Your task to perform on an android device: change notification settings in the gmail app Image 0: 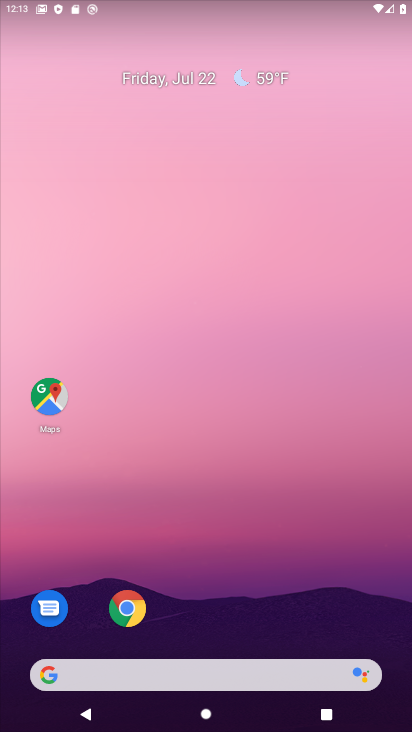
Step 0: drag from (227, 631) to (271, 11)
Your task to perform on an android device: change notification settings in the gmail app Image 1: 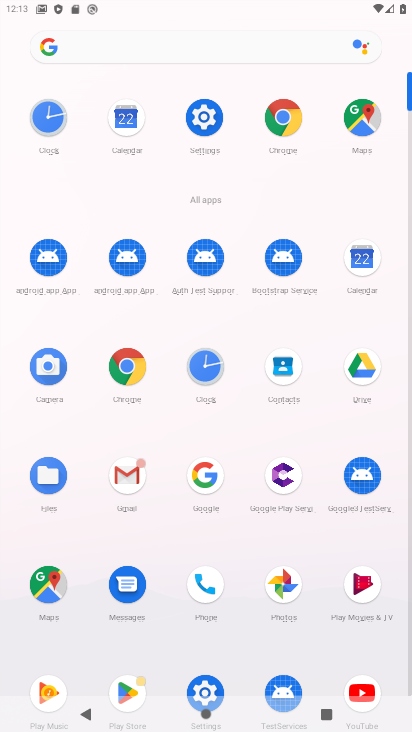
Step 1: click (128, 483)
Your task to perform on an android device: change notification settings in the gmail app Image 2: 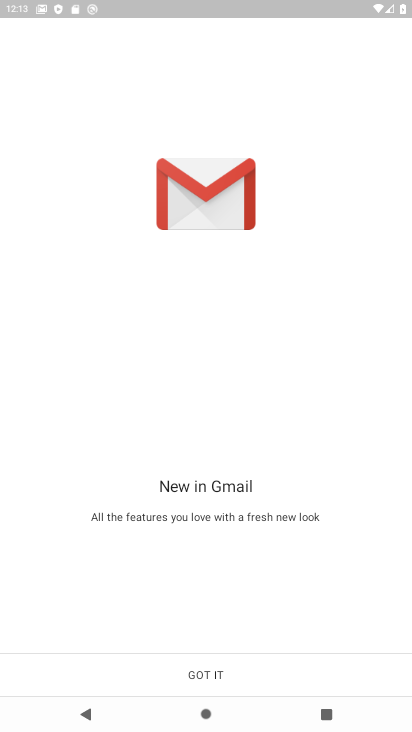
Step 2: click (248, 665)
Your task to perform on an android device: change notification settings in the gmail app Image 3: 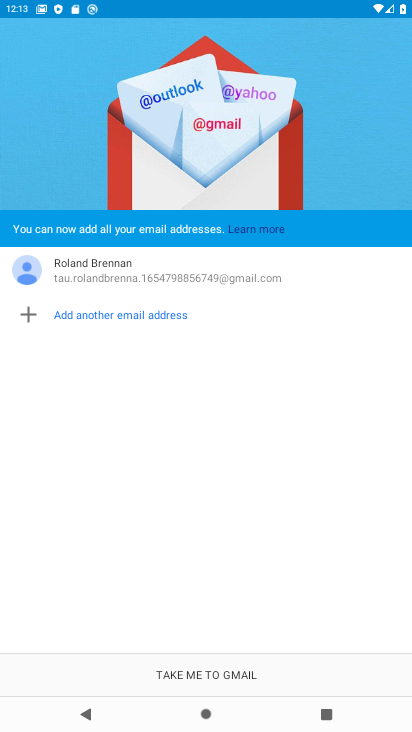
Step 3: click (248, 663)
Your task to perform on an android device: change notification settings in the gmail app Image 4: 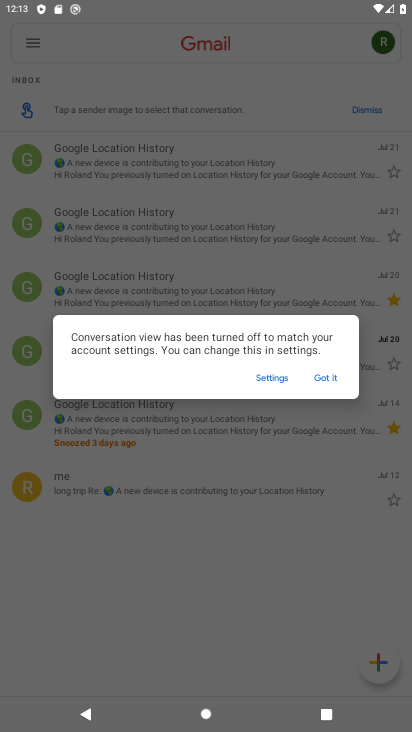
Step 4: click (320, 377)
Your task to perform on an android device: change notification settings in the gmail app Image 5: 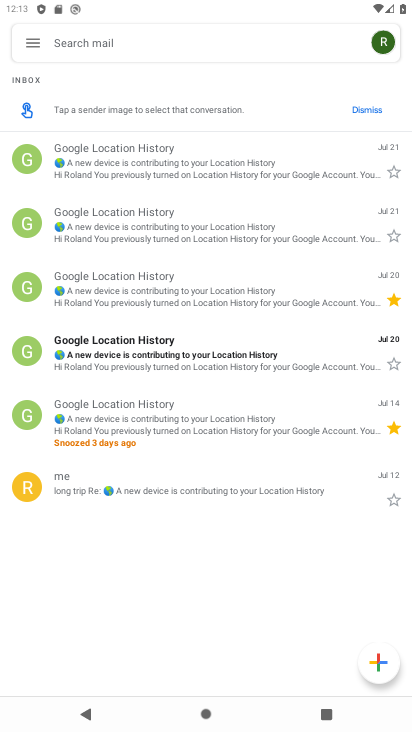
Step 5: click (30, 37)
Your task to perform on an android device: change notification settings in the gmail app Image 6: 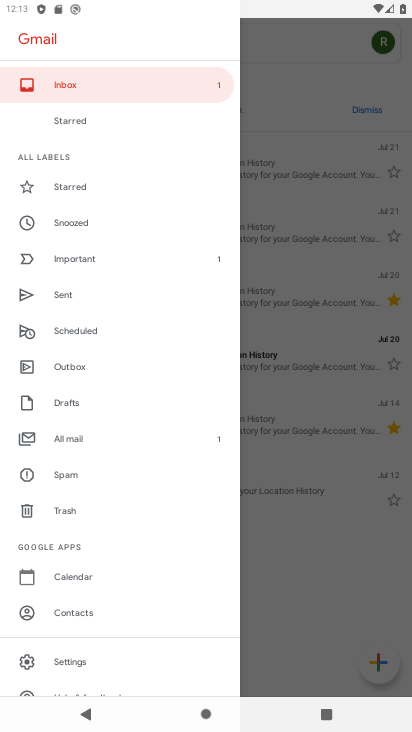
Step 6: drag from (108, 666) to (103, 327)
Your task to perform on an android device: change notification settings in the gmail app Image 7: 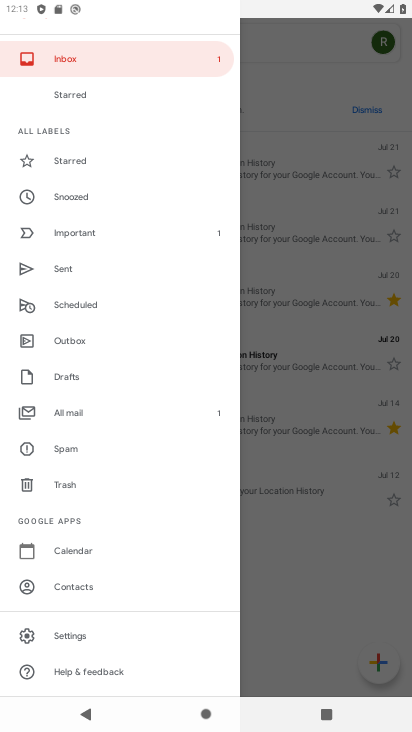
Step 7: click (81, 635)
Your task to perform on an android device: change notification settings in the gmail app Image 8: 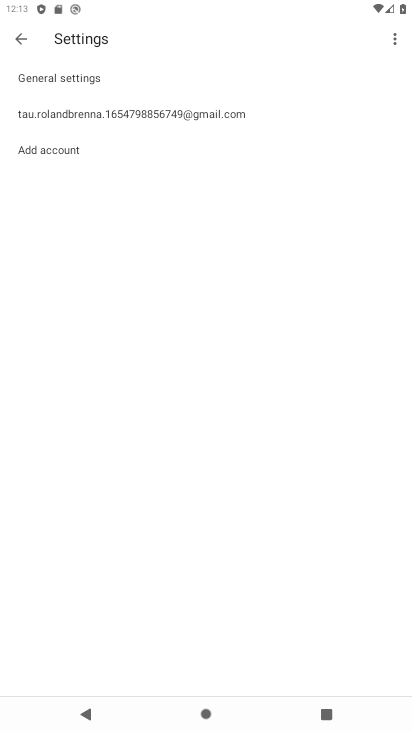
Step 8: click (84, 79)
Your task to perform on an android device: change notification settings in the gmail app Image 9: 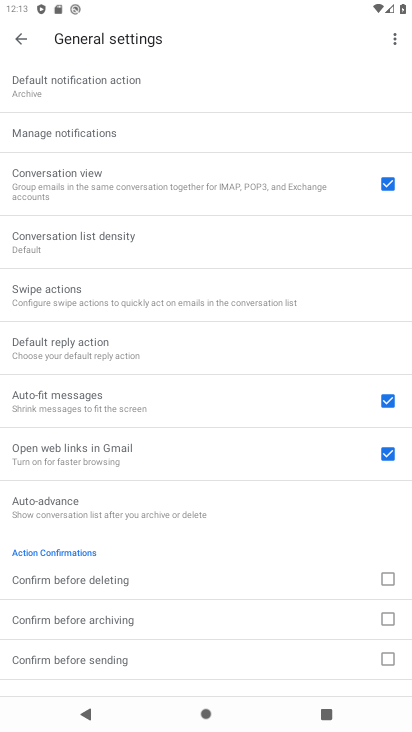
Step 9: click (47, 130)
Your task to perform on an android device: change notification settings in the gmail app Image 10: 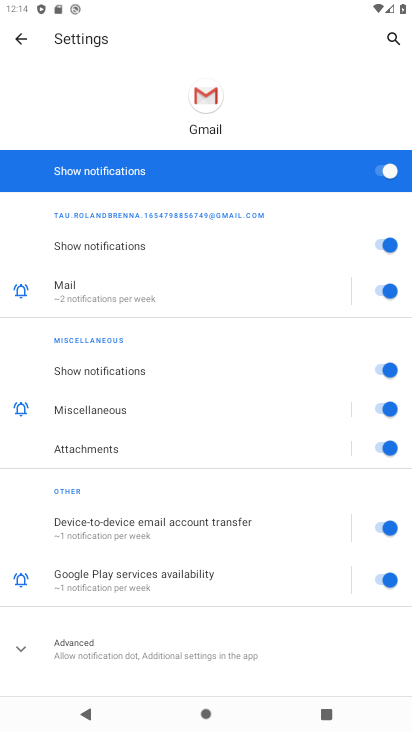
Step 10: click (349, 178)
Your task to perform on an android device: change notification settings in the gmail app Image 11: 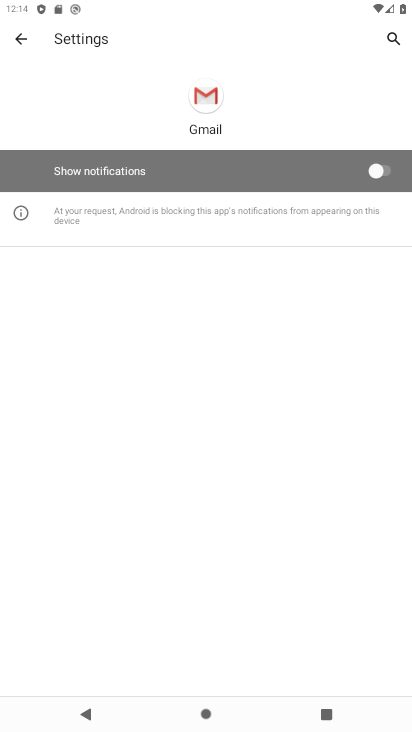
Step 11: task complete